Your task to perform on an android device: change the clock display to show seconds Image 0: 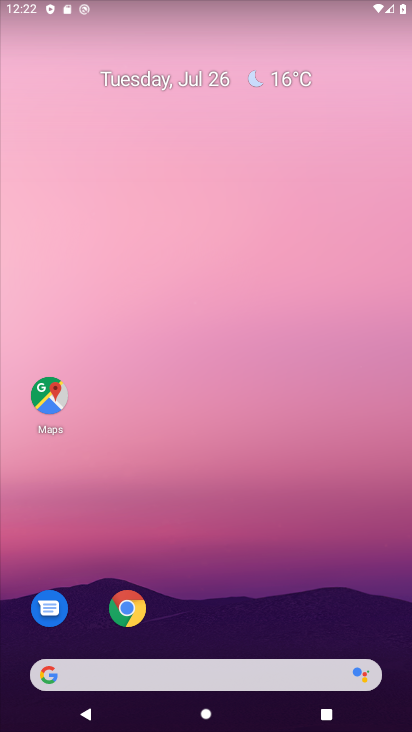
Step 0: task complete